Your task to perform on an android device: Open Google Image 0: 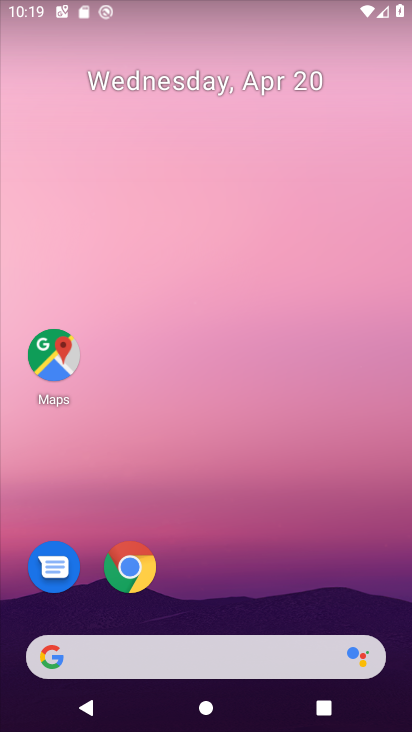
Step 0: drag from (315, 522) to (339, 104)
Your task to perform on an android device: Open Google Image 1: 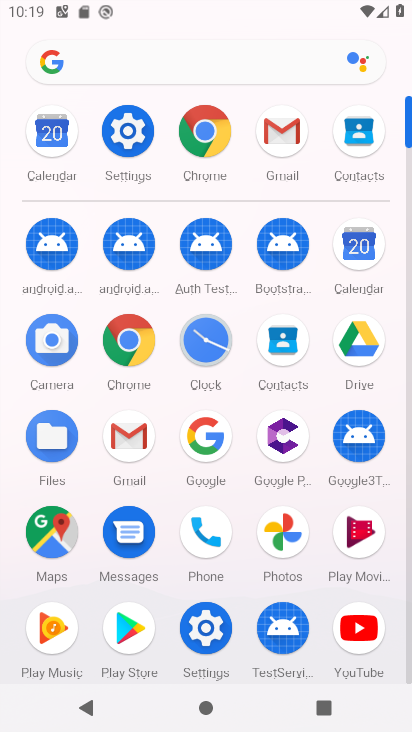
Step 1: click (203, 452)
Your task to perform on an android device: Open Google Image 2: 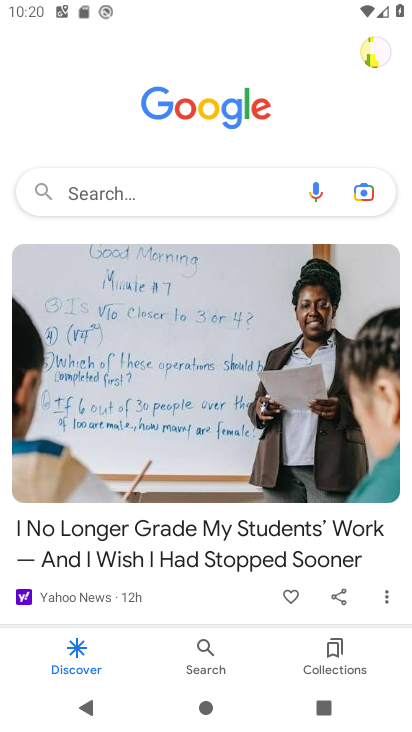
Step 2: task complete